Your task to perform on an android device: Open Yahoo.com Image 0: 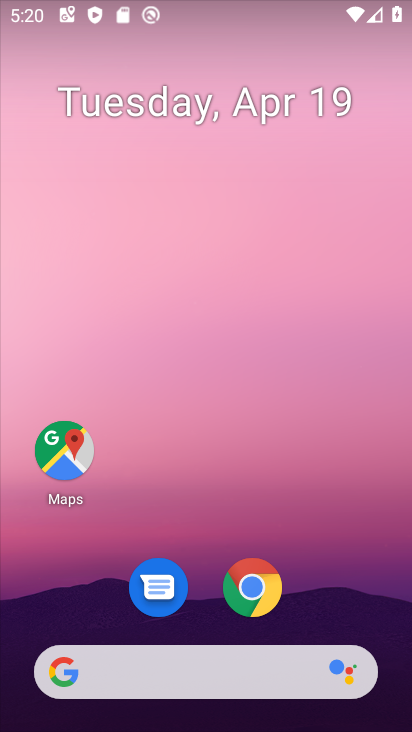
Step 0: click (261, 587)
Your task to perform on an android device: Open Yahoo.com Image 1: 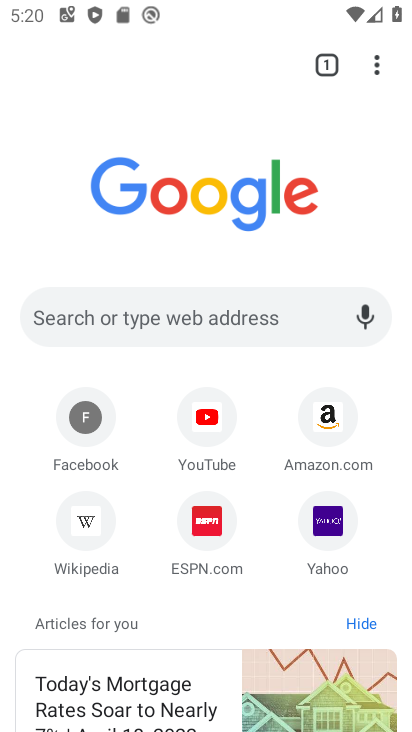
Step 1: click (335, 522)
Your task to perform on an android device: Open Yahoo.com Image 2: 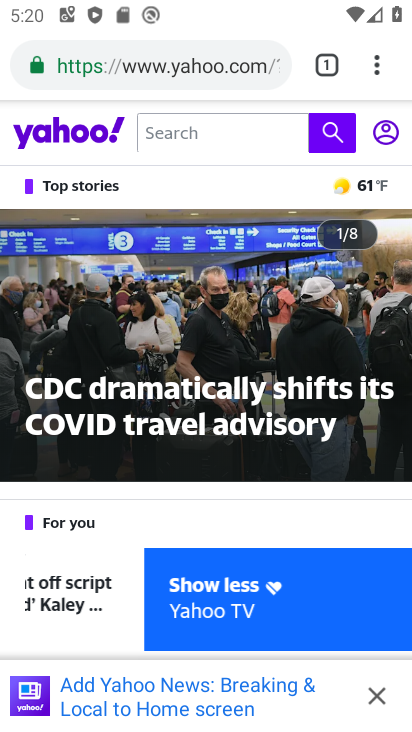
Step 2: task complete